Your task to perform on an android device: turn on improve location accuracy Image 0: 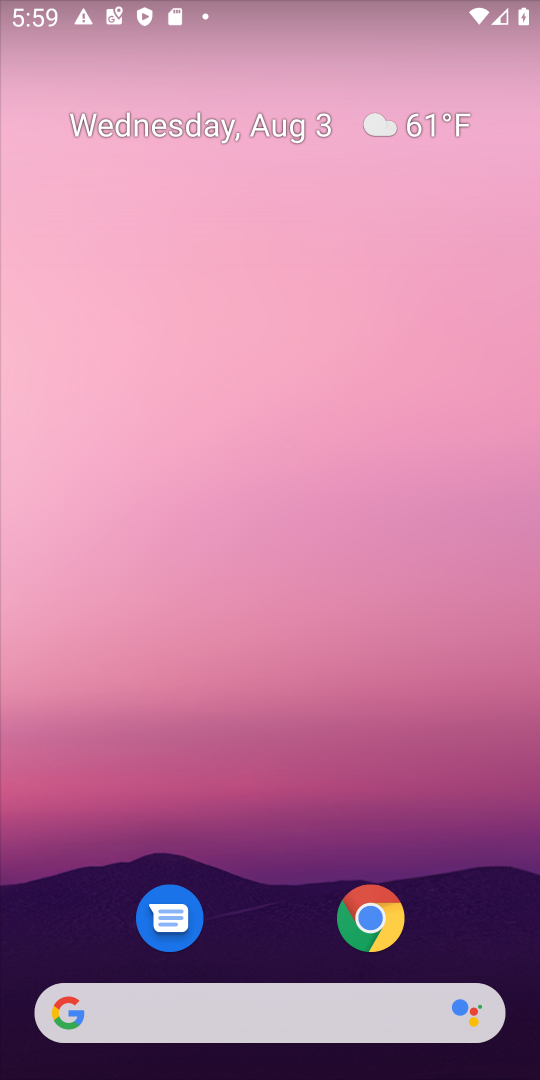
Step 0: drag from (254, 905) to (274, 91)
Your task to perform on an android device: turn on improve location accuracy Image 1: 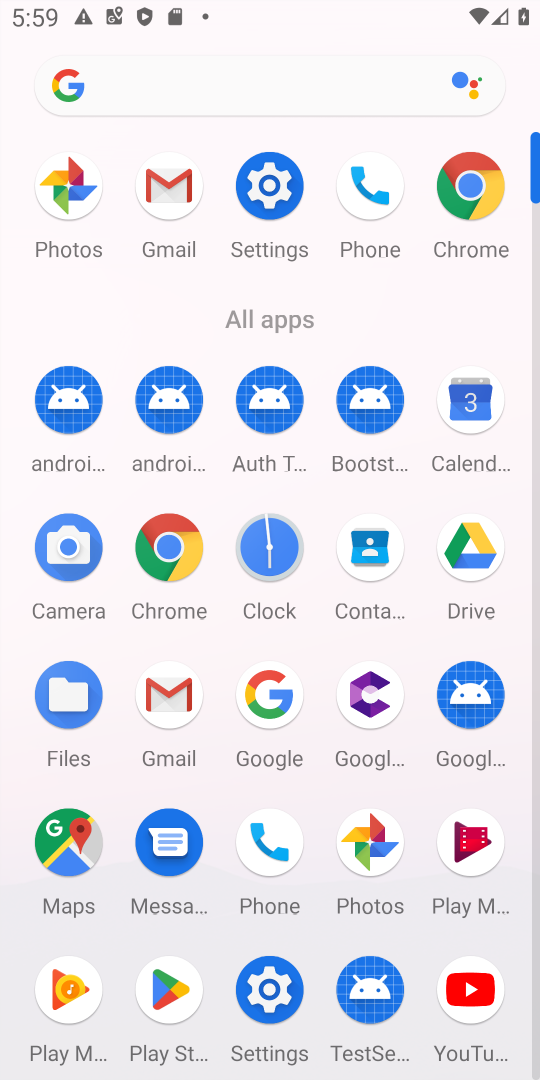
Step 1: click (263, 198)
Your task to perform on an android device: turn on improve location accuracy Image 2: 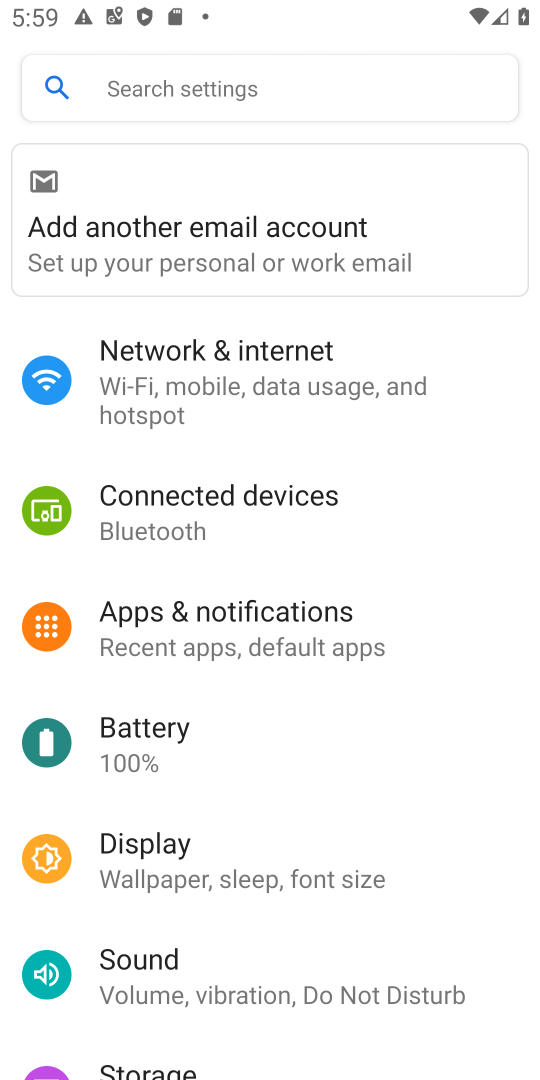
Step 2: drag from (240, 960) to (332, 477)
Your task to perform on an android device: turn on improve location accuracy Image 3: 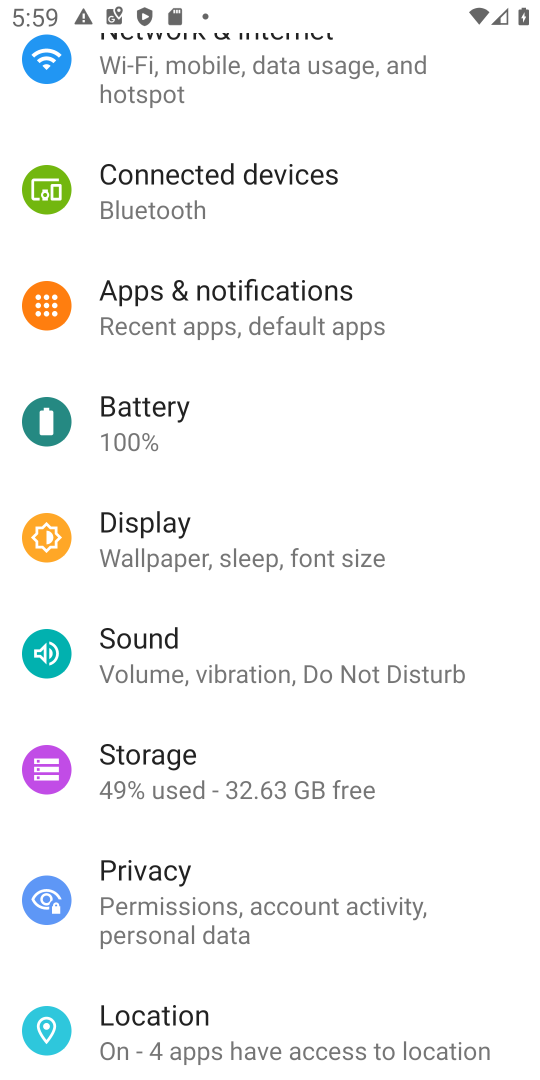
Step 3: click (253, 1030)
Your task to perform on an android device: turn on improve location accuracy Image 4: 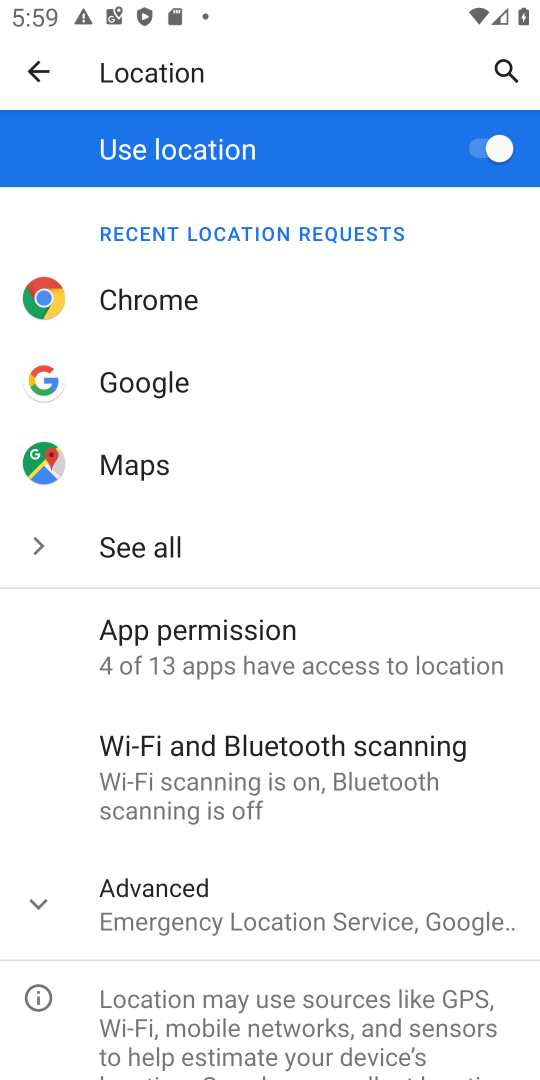
Step 4: click (241, 894)
Your task to perform on an android device: turn on improve location accuracy Image 5: 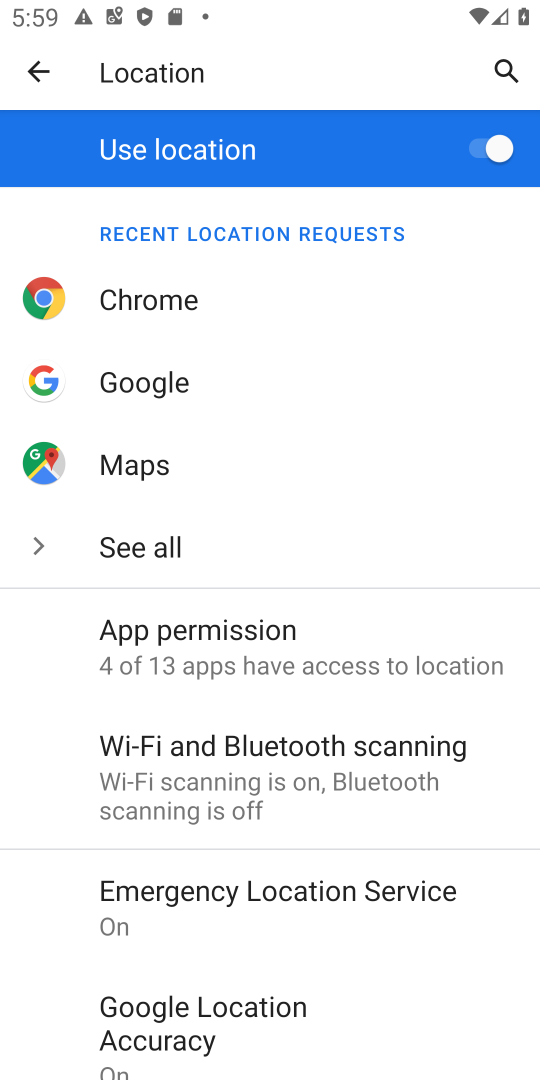
Step 5: click (211, 1067)
Your task to perform on an android device: turn on improve location accuracy Image 6: 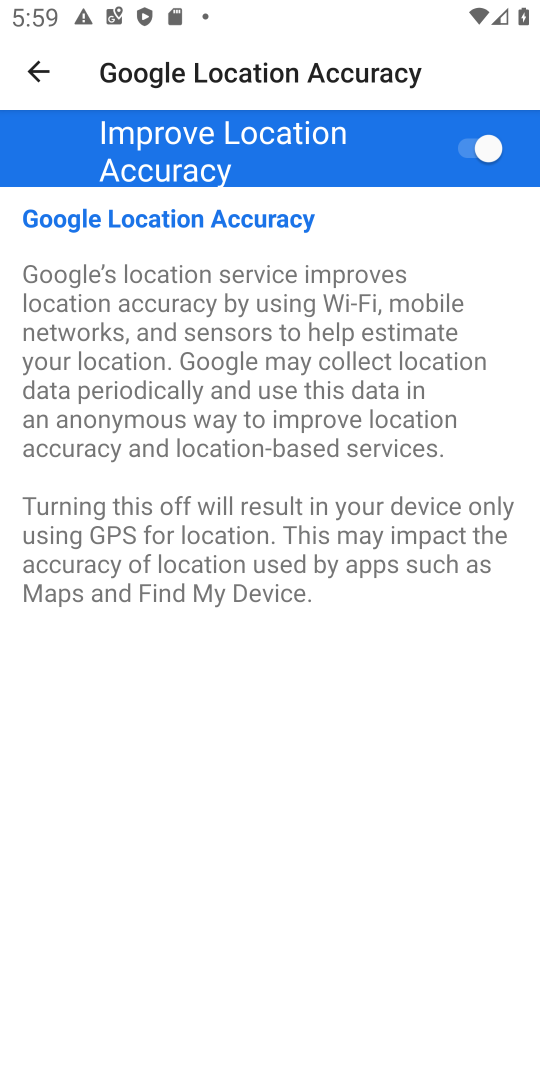
Step 6: task complete